Your task to perform on an android device: turn on notifications settings in the gmail app Image 0: 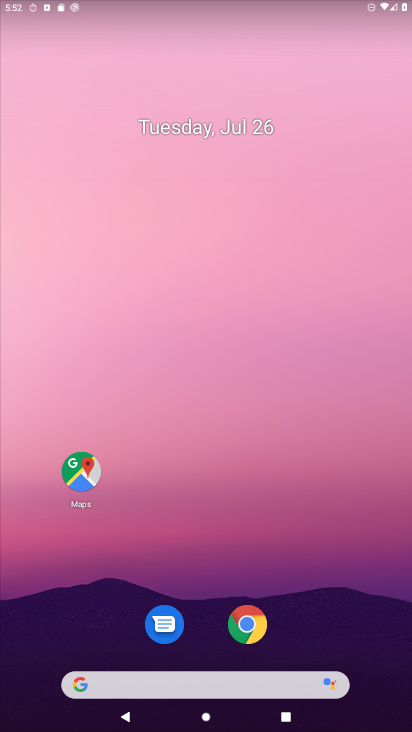
Step 0: drag from (124, 673) to (230, 15)
Your task to perform on an android device: turn on notifications settings in the gmail app Image 1: 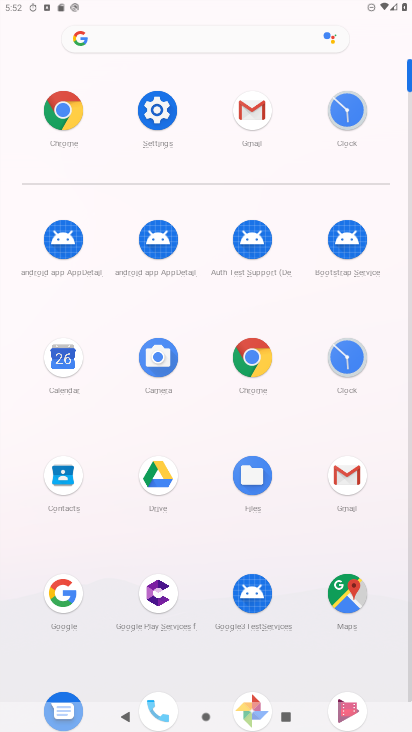
Step 1: click (338, 465)
Your task to perform on an android device: turn on notifications settings in the gmail app Image 2: 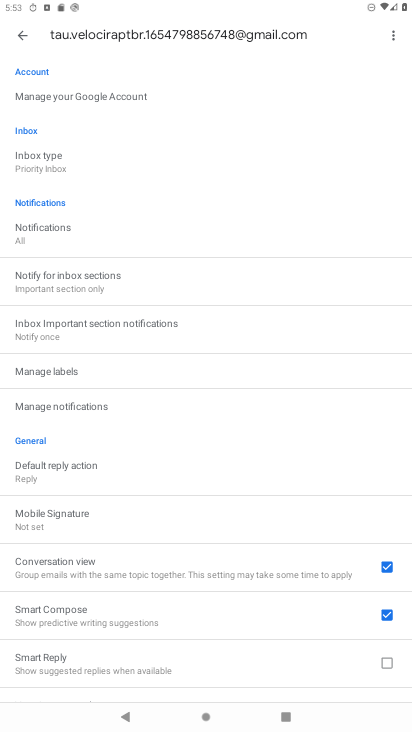
Step 2: click (78, 405)
Your task to perform on an android device: turn on notifications settings in the gmail app Image 3: 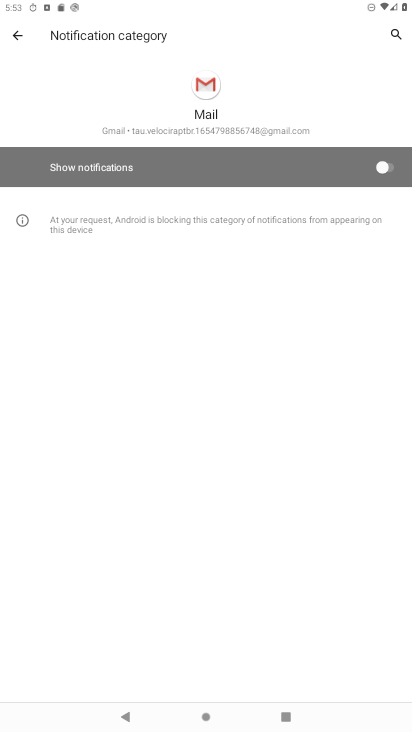
Step 3: click (376, 167)
Your task to perform on an android device: turn on notifications settings in the gmail app Image 4: 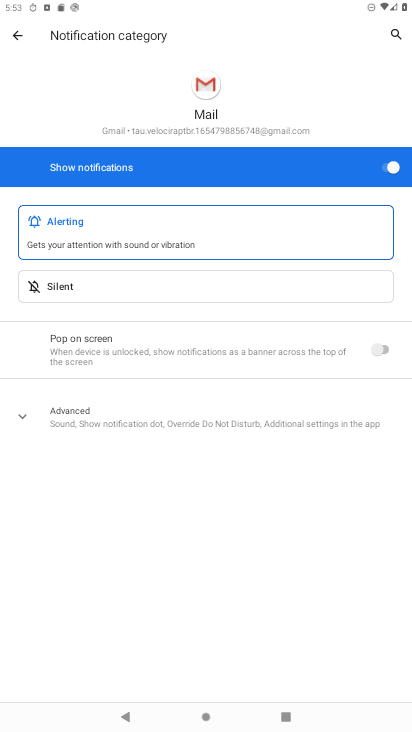
Step 4: task complete